Your task to perform on an android device: Go to settings Image 0: 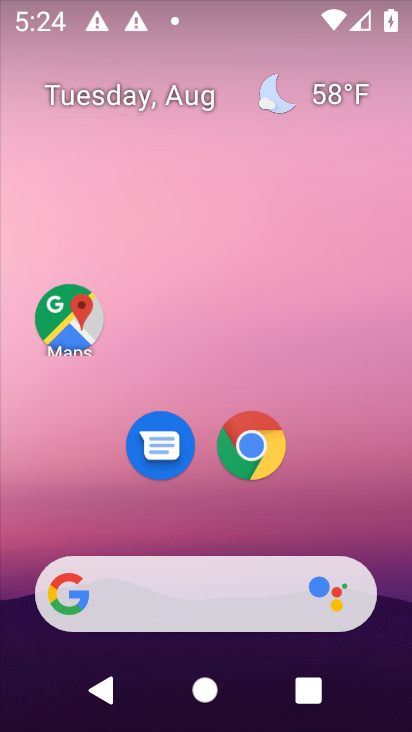
Step 0: drag from (193, 450) to (166, 0)
Your task to perform on an android device: Go to settings Image 1: 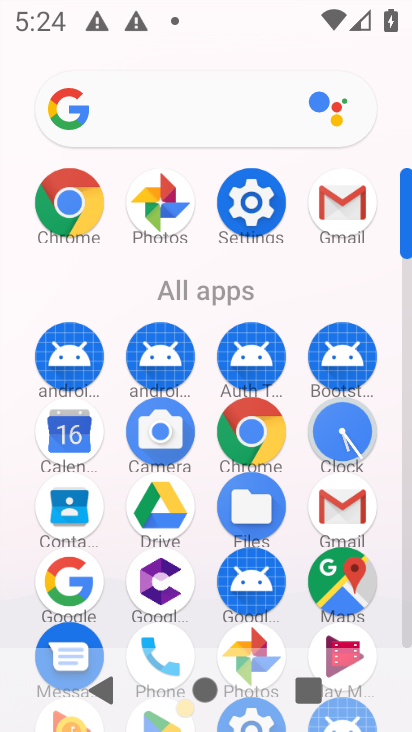
Step 1: click (249, 202)
Your task to perform on an android device: Go to settings Image 2: 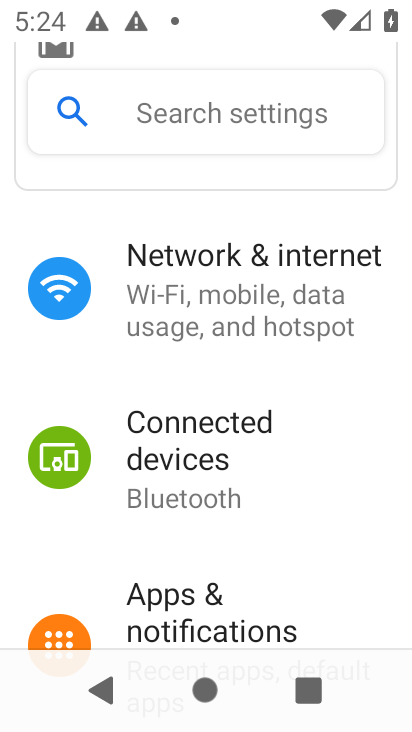
Step 2: task complete